Your task to perform on an android device: Is it going to rain today? Image 0: 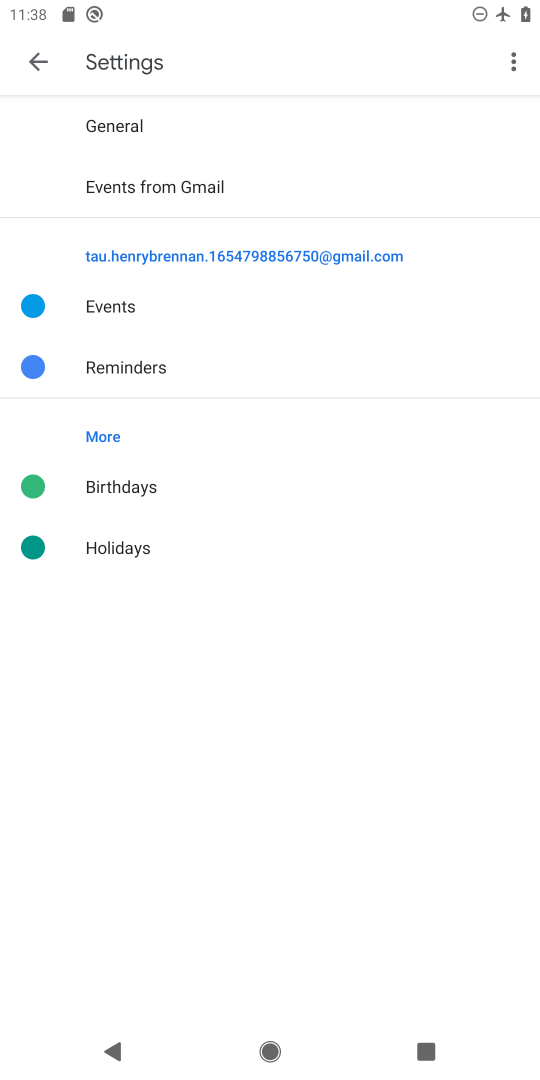
Step 0: press home button
Your task to perform on an android device: Is it going to rain today? Image 1: 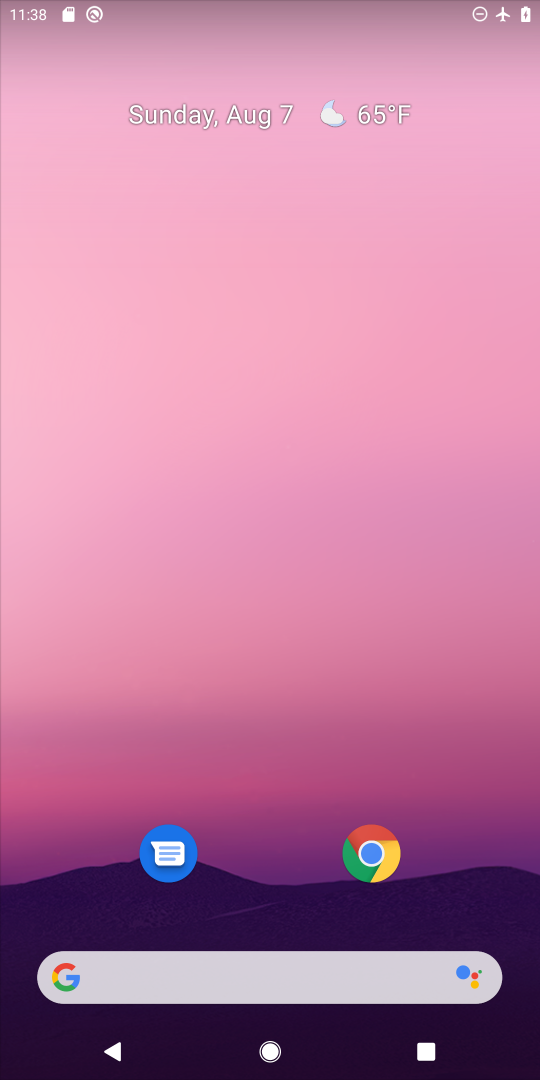
Step 1: drag from (233, 948) to (277, 212)
Your task to perform on an android device: Is it going to rain today? Image 2: 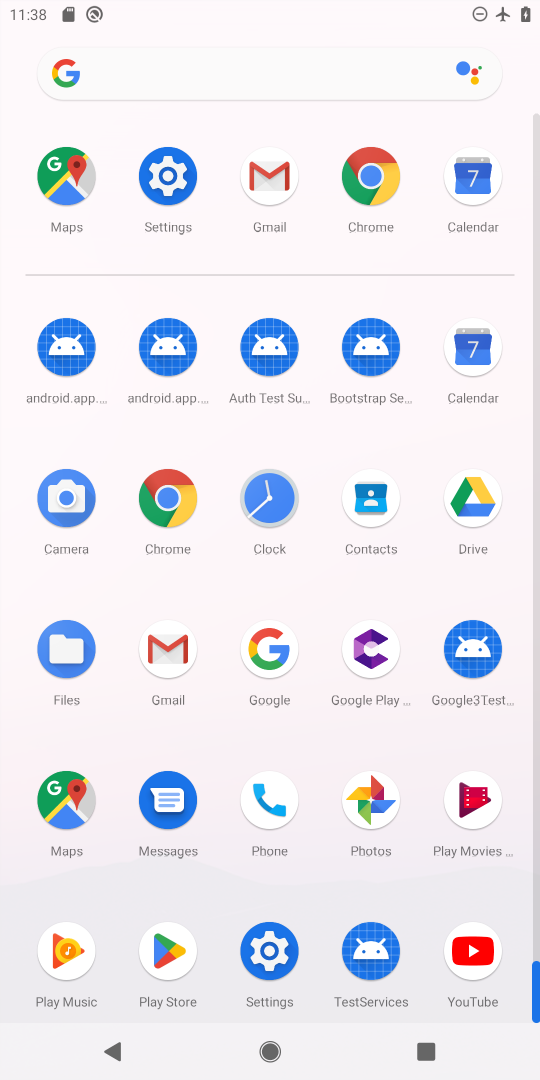
Step 2: click (149, 180)
Your task to perform on an android device: Is it going to rain today? Image 3: 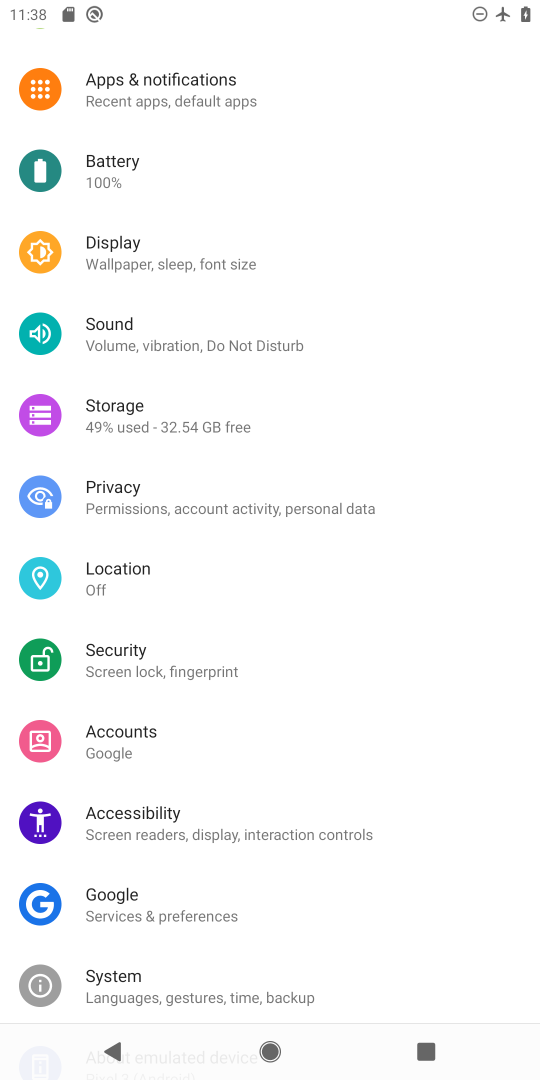
Step 3: press home button
Your task to perform on an android device: Is it going to rain today? Image 4: 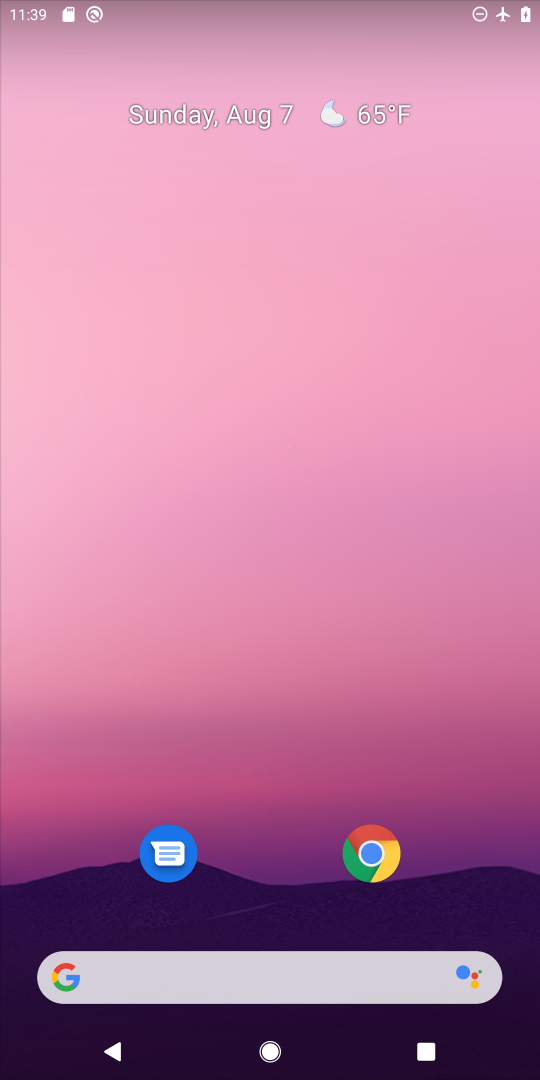
Step 4: drag from (250, 930) to (225, 178)
Your task to perform on an android device: Is it going to rain today? Image 5: 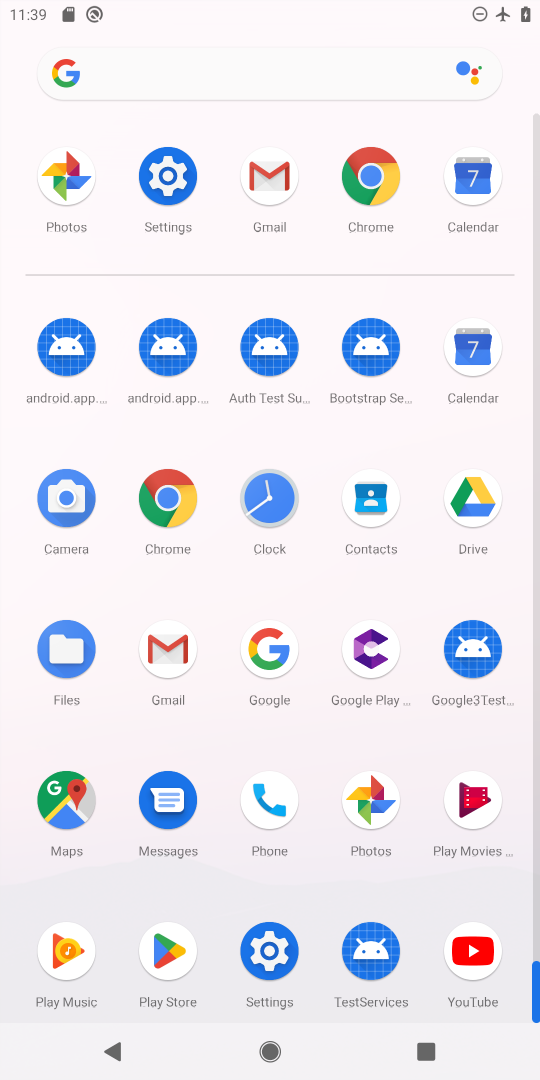
Step 5: click (356, 165)
Your task to perform on an android device: Is it going to rain today? Image 6: 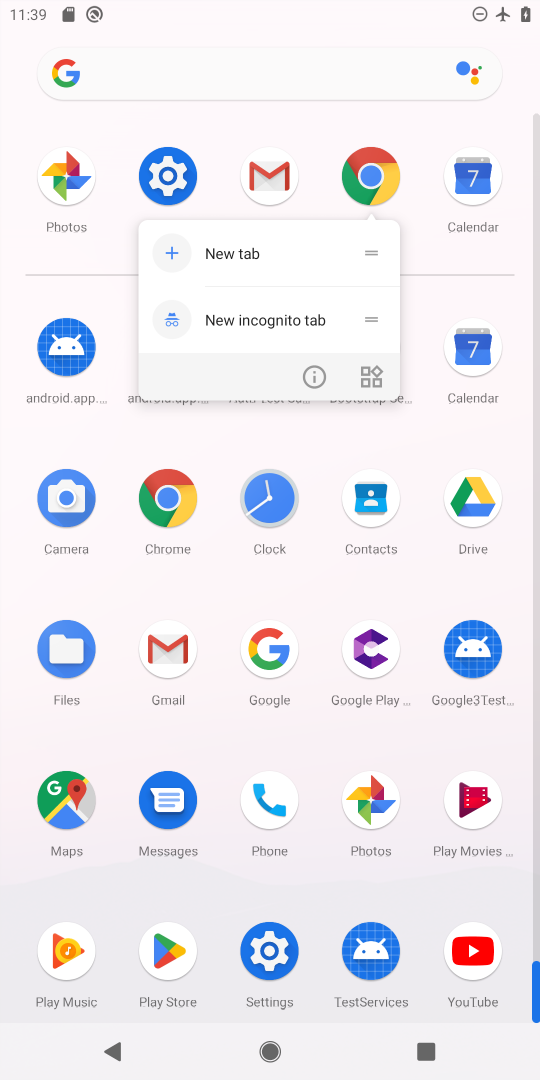
Step 6: click (363, 163)
Your task to perform on an android device: Is it going to rain today? Image 7: 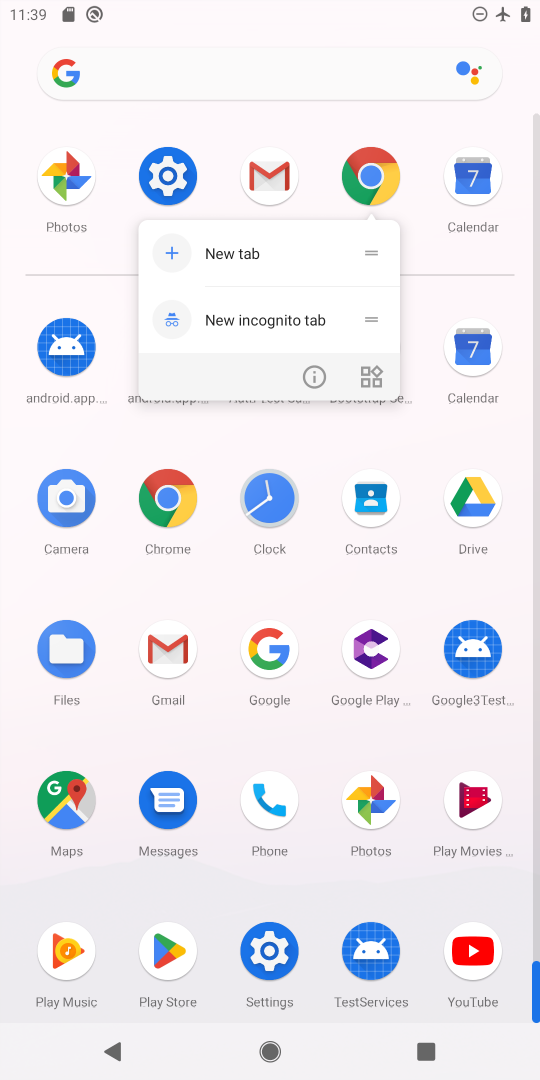
Step 7: click (365, 172)
Your task to perform on an android device: Is it going to rain today? Image 8: 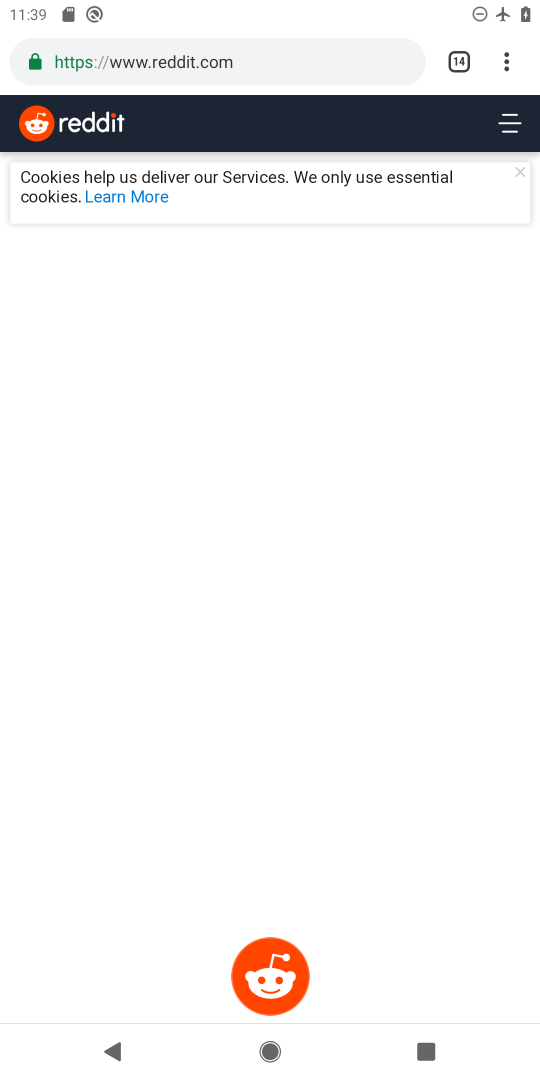
Step 8: click (512, 66)
Your task to perform on an android device: Is it going to rain today? Image 9: 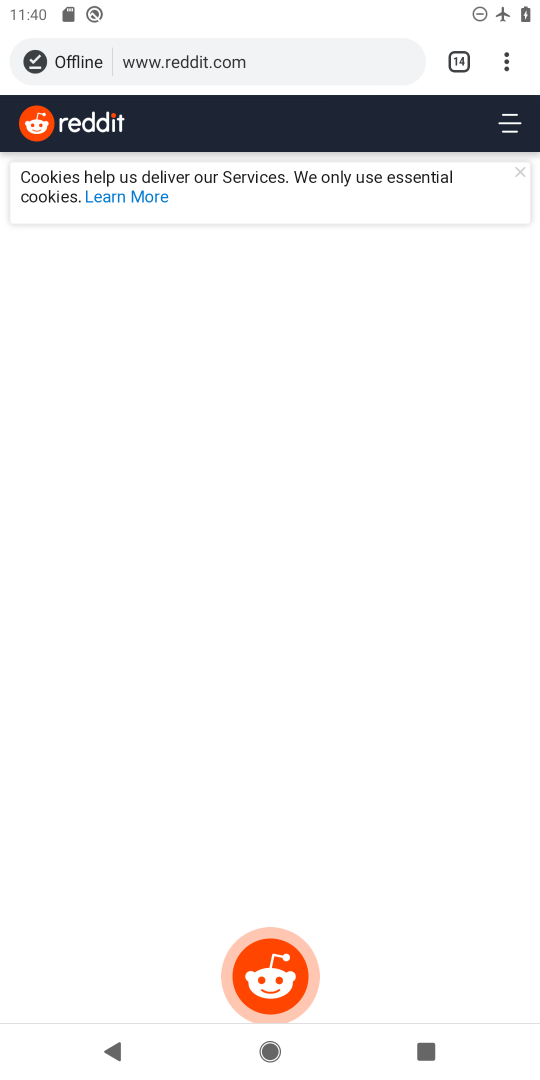
Step 9: click (512, 60)
Your task to perform on an android device: Is it going to rain today? Image 10: 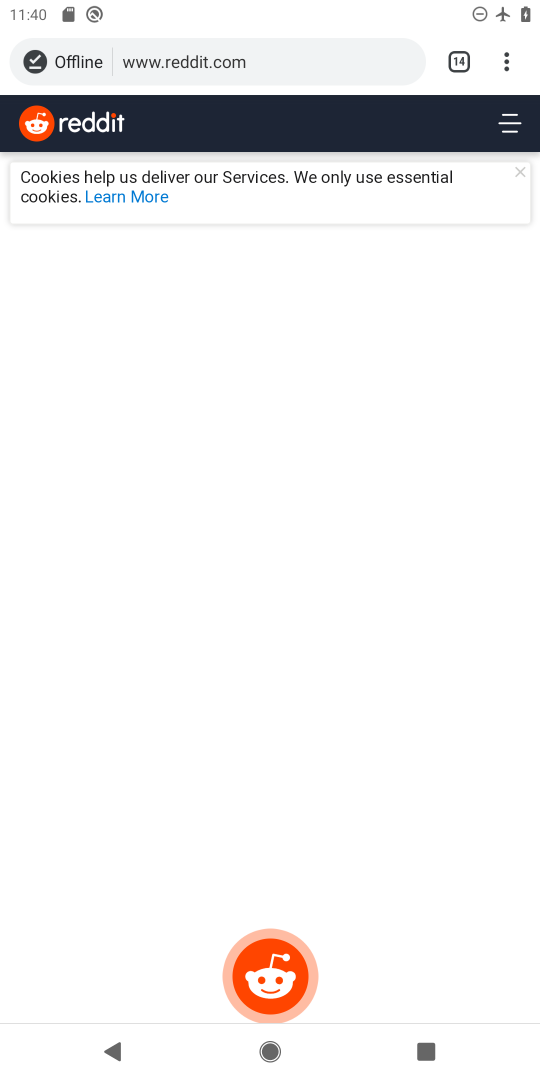
Step 10: click (501, 66)
Your task to perform on an android device: Is it going to rain today? Image 11: 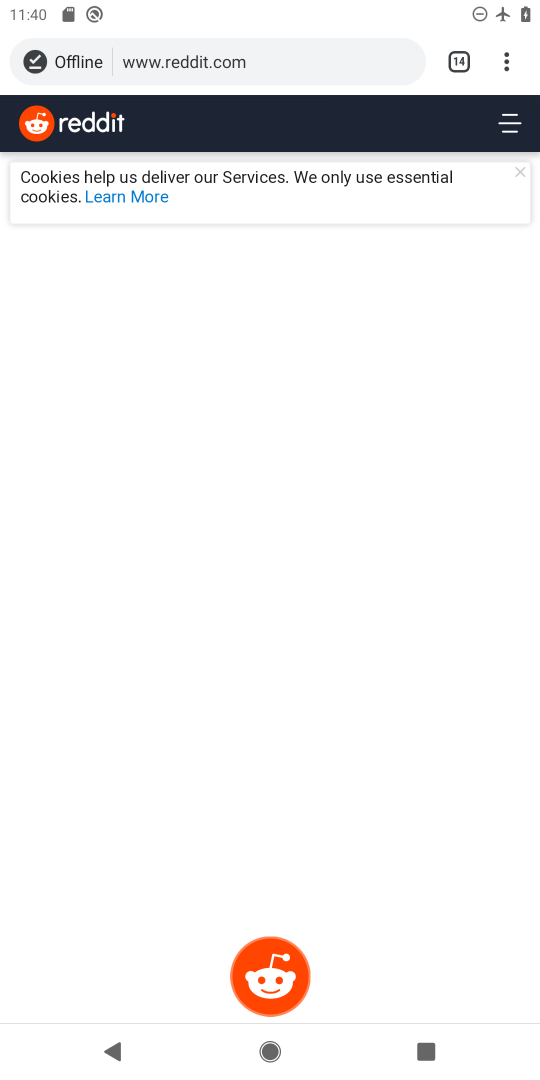
Step 11: click (501, 63)
Your task to perform on an android device: Is it going to rain today? Image 12: 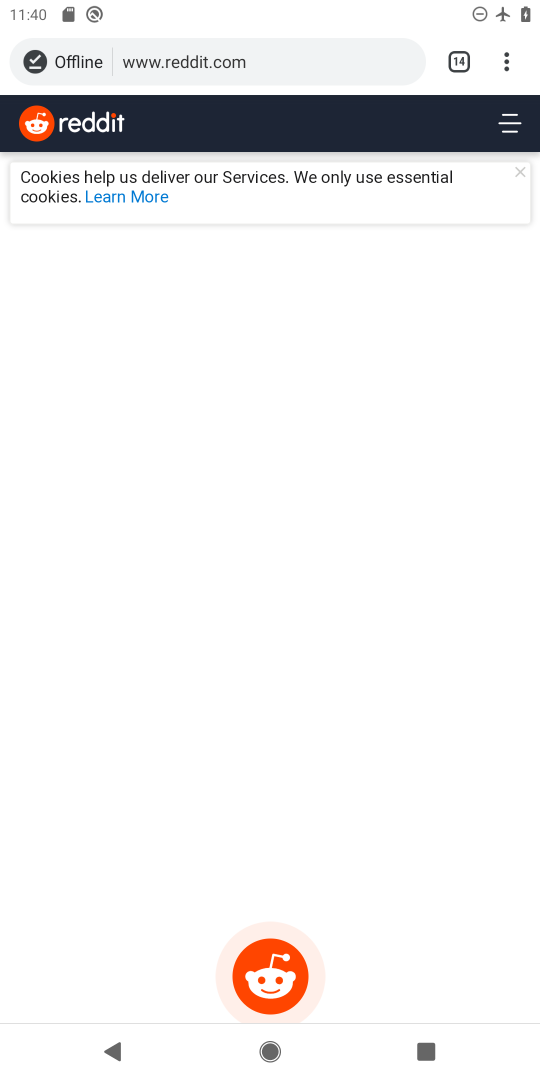
Step 12: click (519, 56)
Your task to perform on an android device: Is it going to rain today? Image 13: 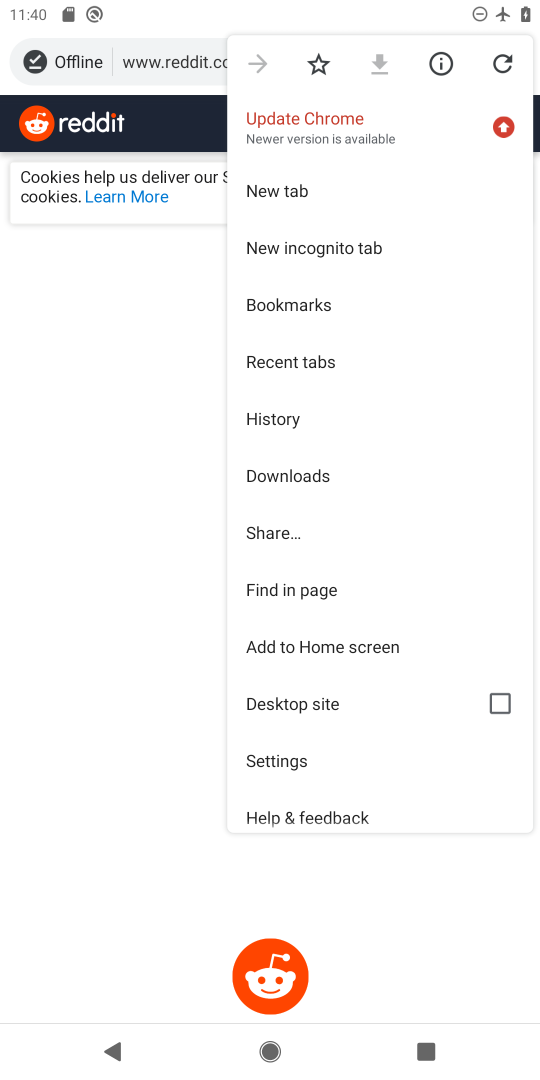
Step 13: click (286, 193)
Your task to perform on an android device: Is it going to rain today? Image 14: 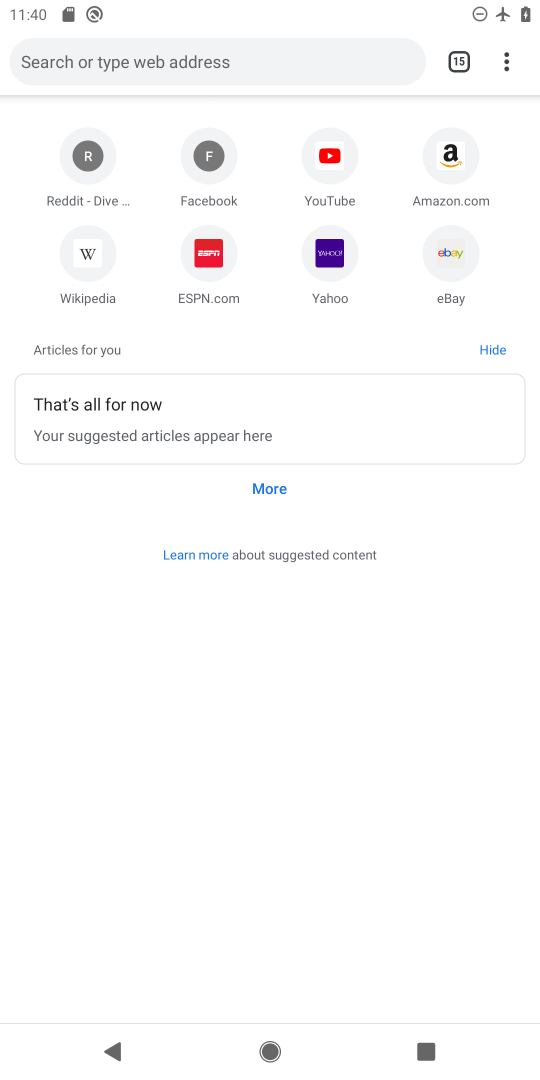
Step 14: click (98, 55)
Your task to perform on an android device: Is it going to rain today? Image 15: 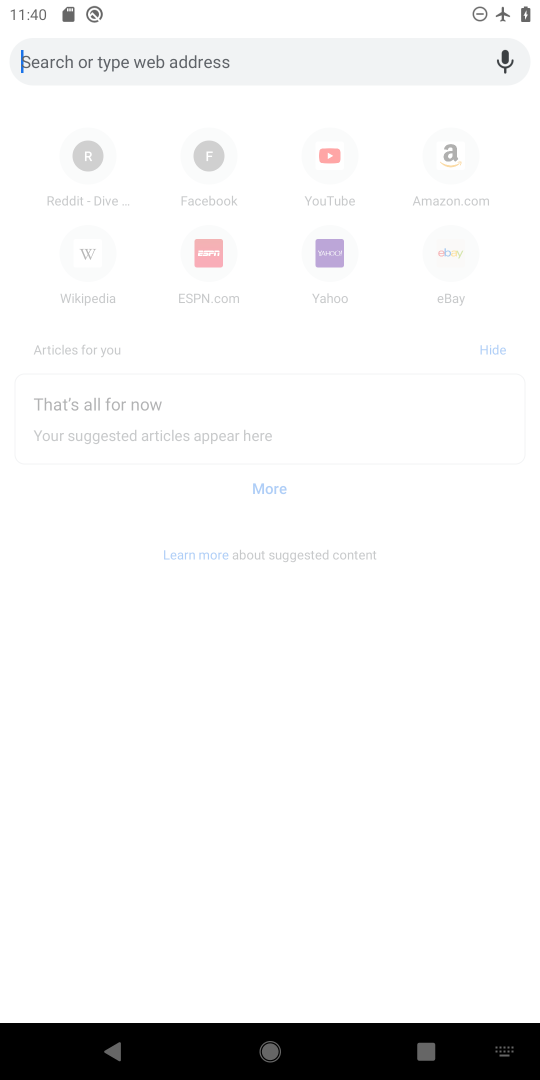
Step 15: type "Is it going to rain today? "
Your task to perform on an android device: Is it going to rain today? Image 16: 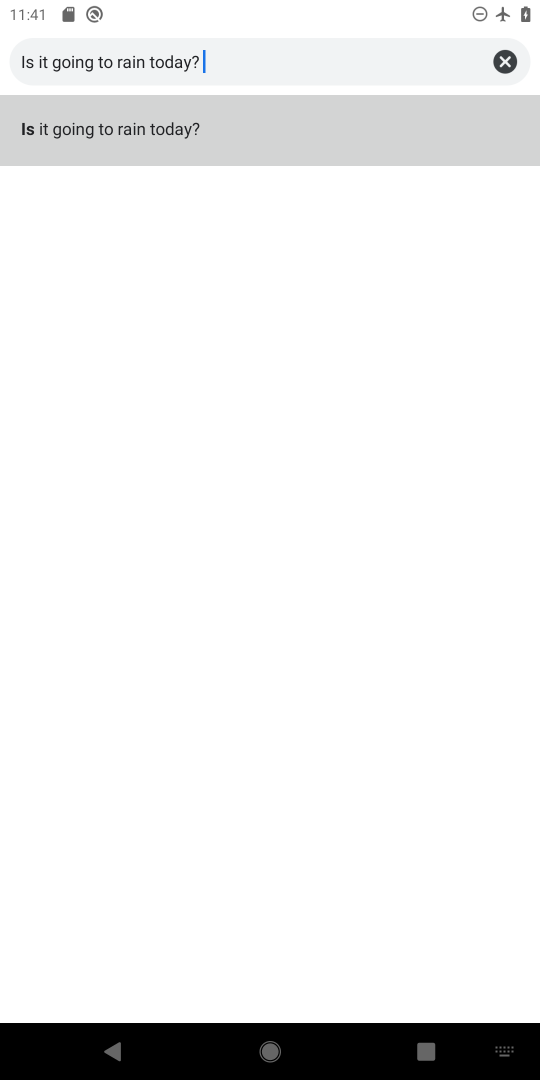
Step 16: click (292, 123)
Your task to perform on an android device: Is it going to rain today? Image 17: 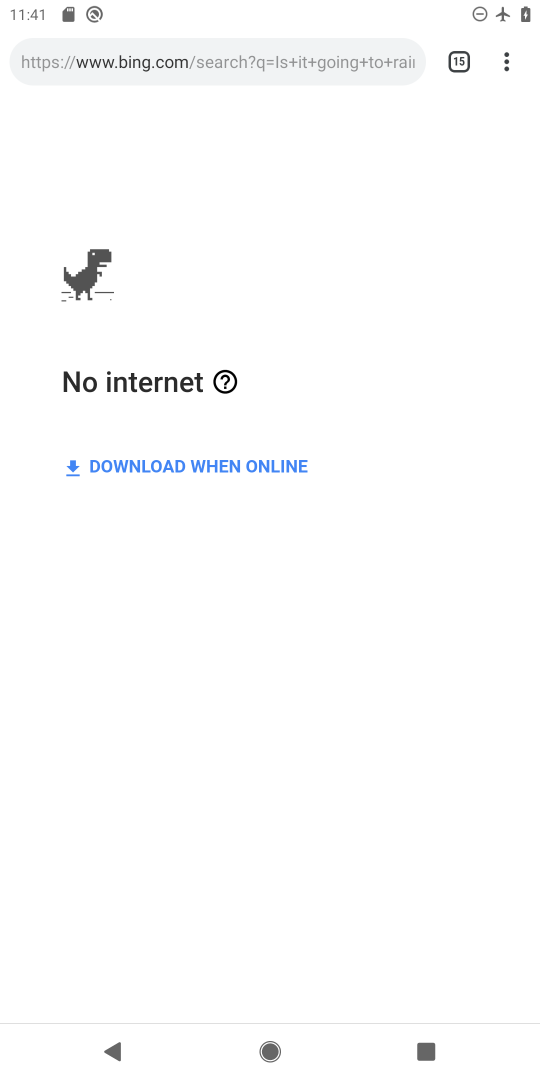
Step 17: task complete